Your task to perform on an android device: Open Google Chrome Image 0: 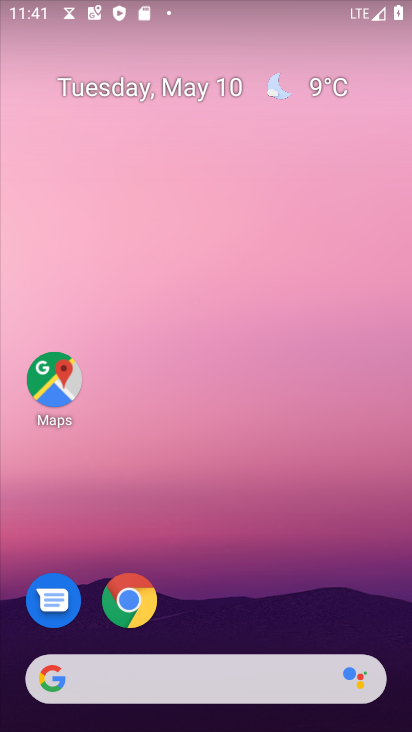
Step 0: click (140, 610)
Your task to perform on an android device: Open Google Chrome Image 1: 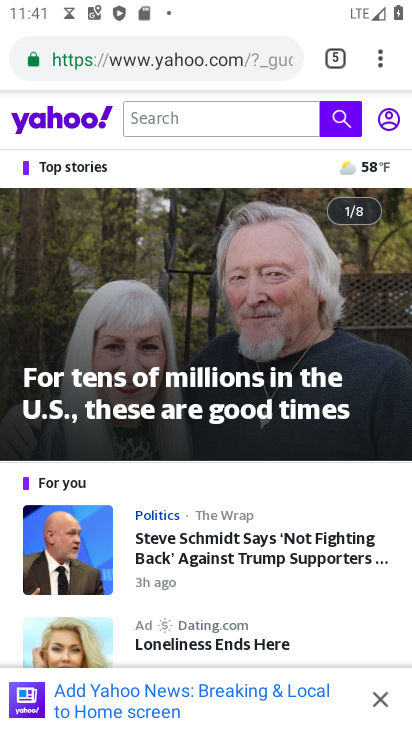
Step 1: task complete